Your task to perform on an android device: check google app version Image 0: 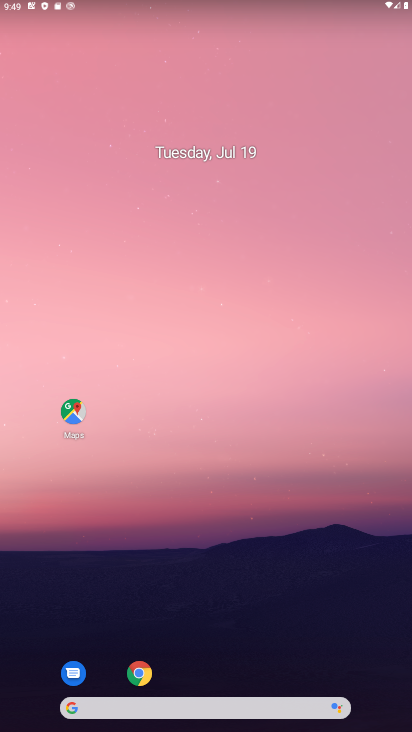
Step 0: drag from (232, 683) to (254, 233)
Your task to perform on an android device: check google app version Image 1: 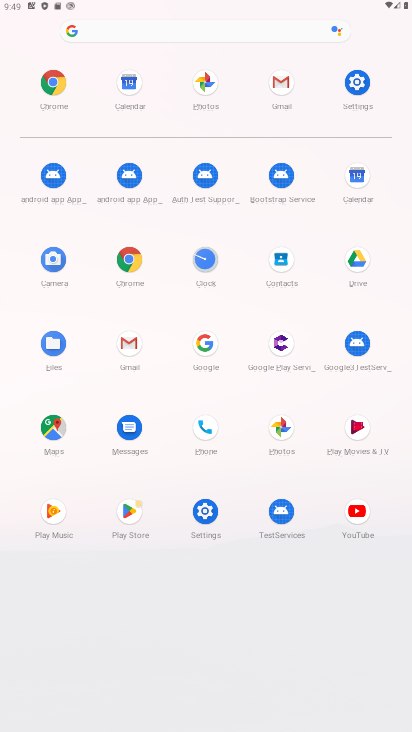
Step 1: click (207, 344)
Your task to perform on an android device: check google app version Image 2: 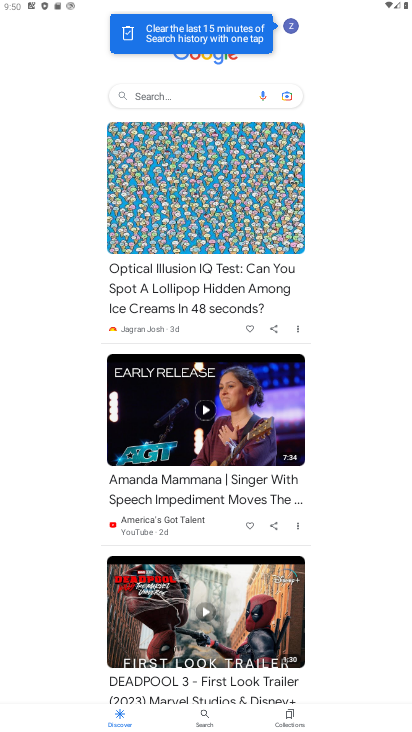
Step 2: click (289, 25)
Your task to perform on an android device: check google app version Image 3: 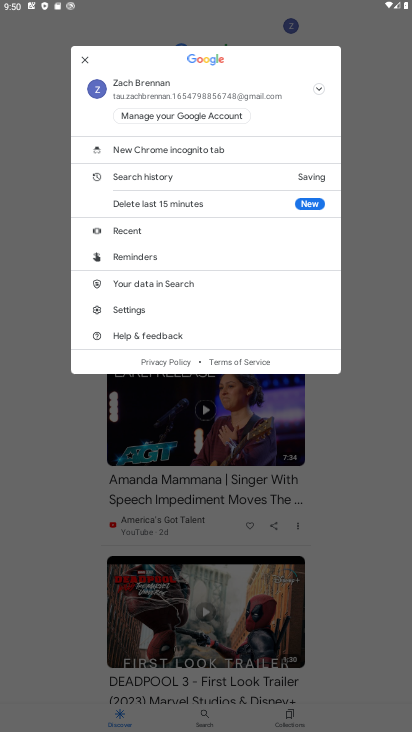
Step 3: click (153, 309)
Your task to perform on an android device: check google app version Image 4: 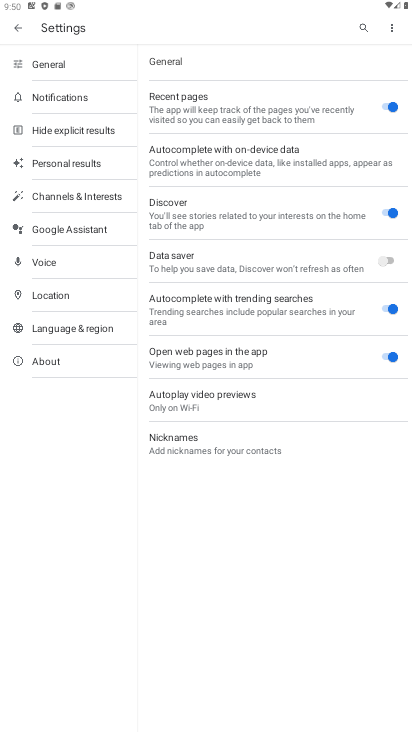
Step 4: click (82, 352)
Your task to perform on an android device: check google app version Image 5: 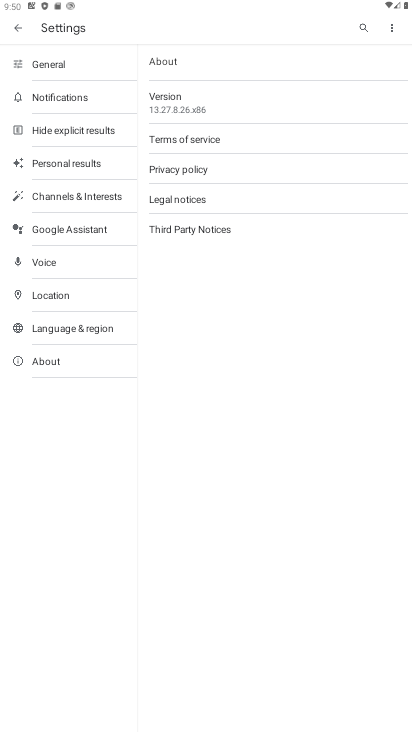
Step 5: click (191, 108)
Your task to perform on an android device: check google app version Image 6: 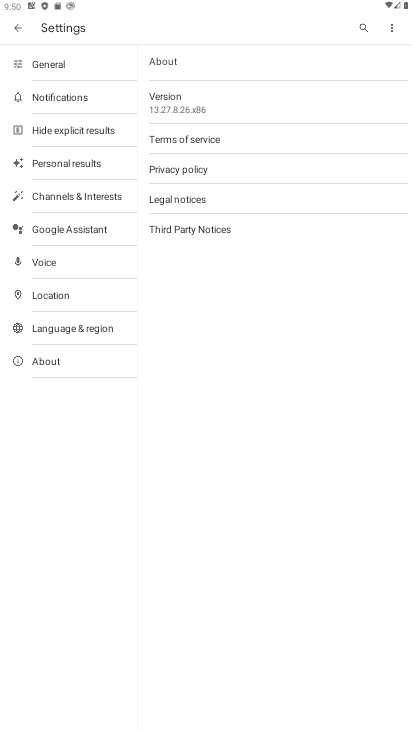
Step 6: task complete